Your task to perform on an android device: choose inbox layout in the gmail app Image 0: 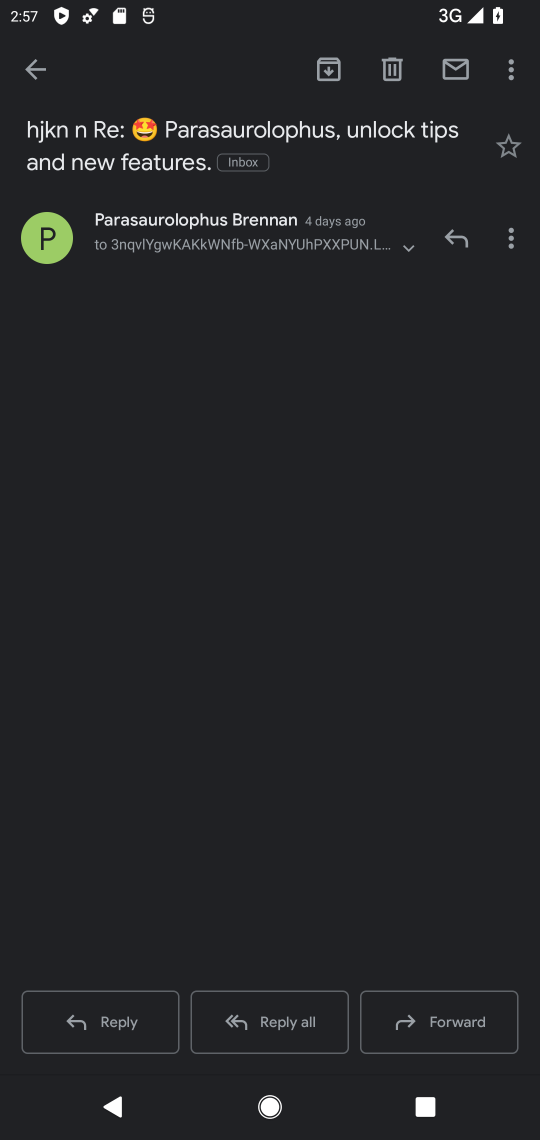
Step 0: click (62, 69)
Your task to perform on an android device: choose inbox layout in the gmail app Image 1: 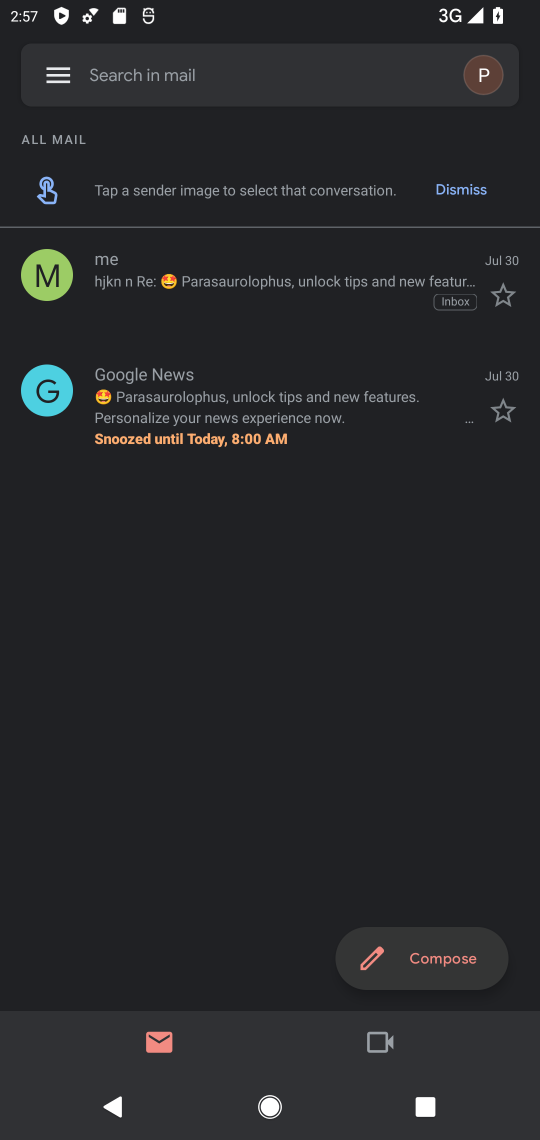
Step 1: click (62, 69)
Your task to perform on an android device: choose inbox layout in the gmail app Image 2: 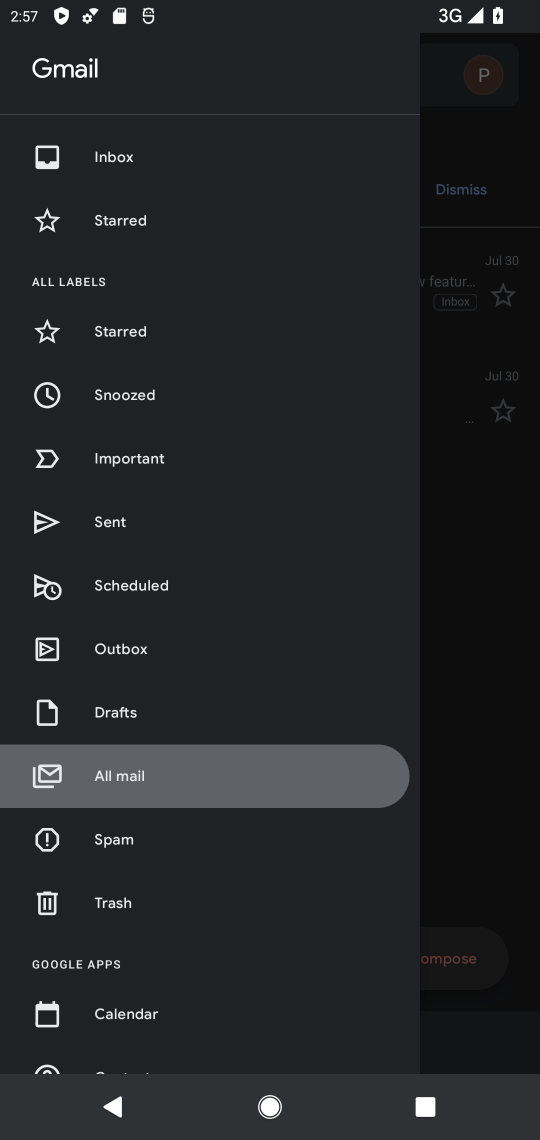
Step 2: drag from (114, 960) to (190, 508)
Your task to perform on an android device: choose inbox layout in the gmail app Image 3: 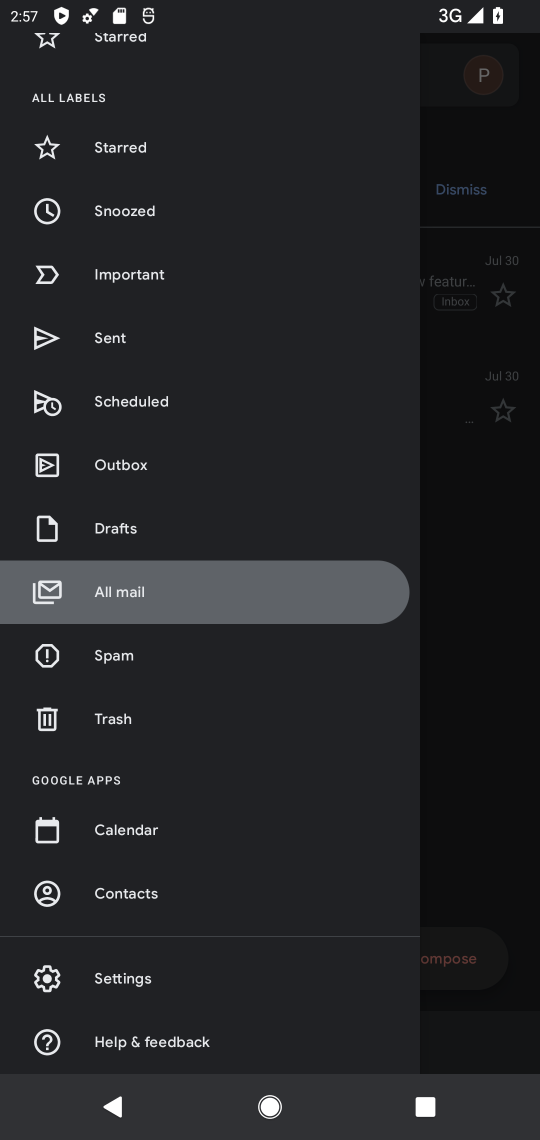
Step 3: click (168, 953)
Your task to perform on an android device: choose inbox layout in the gmail app Image 4: 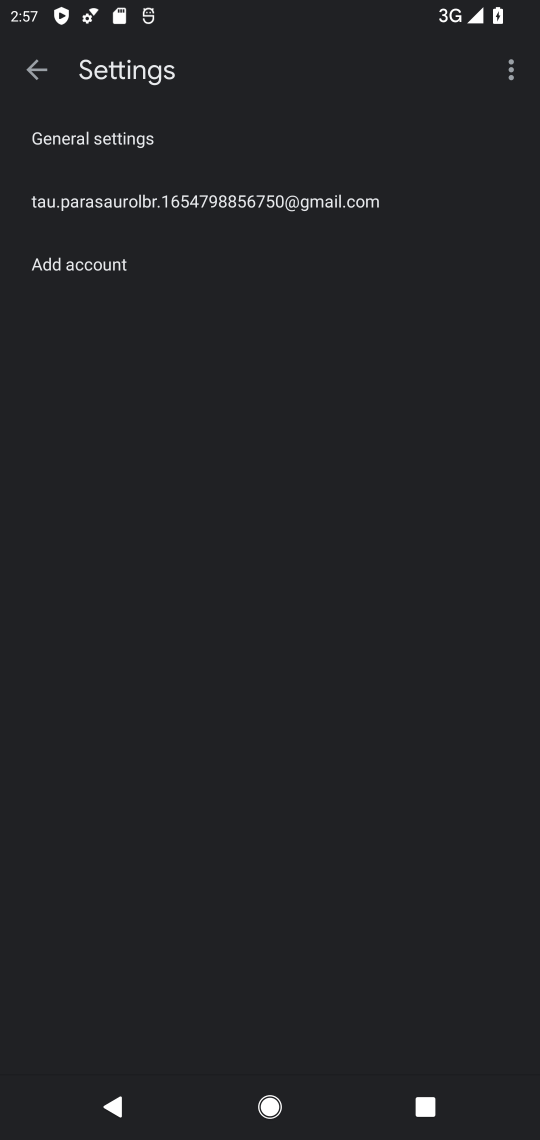
Step 4: click (162, 215)
Your task to perform on an android device: choose inbox layout in the gmail app Image 5: 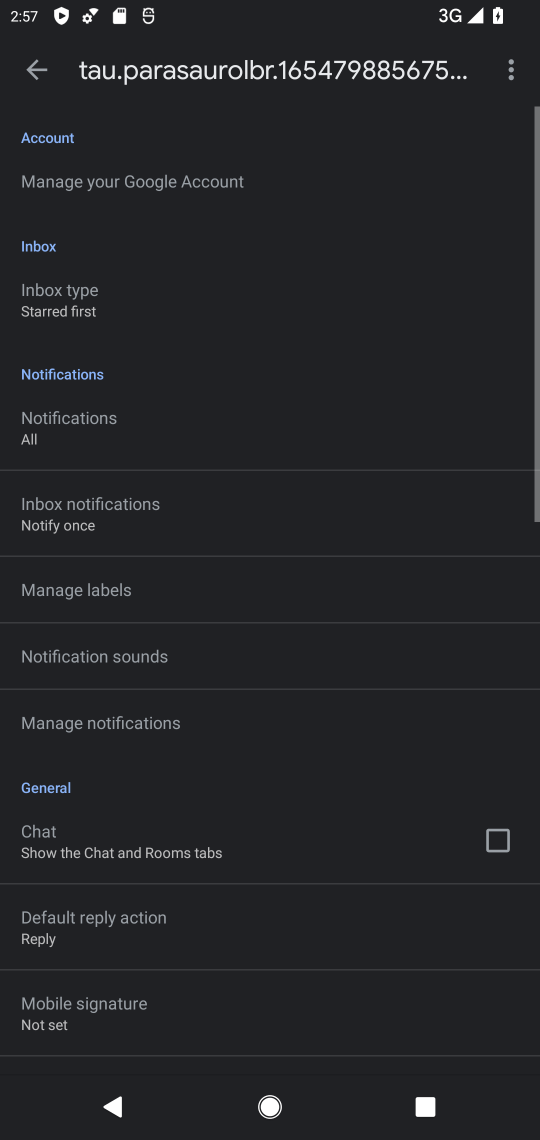
Step 5: click (144, 307)
Your task to perform on an android device: choose inbox layout in the gmail app Image 6: 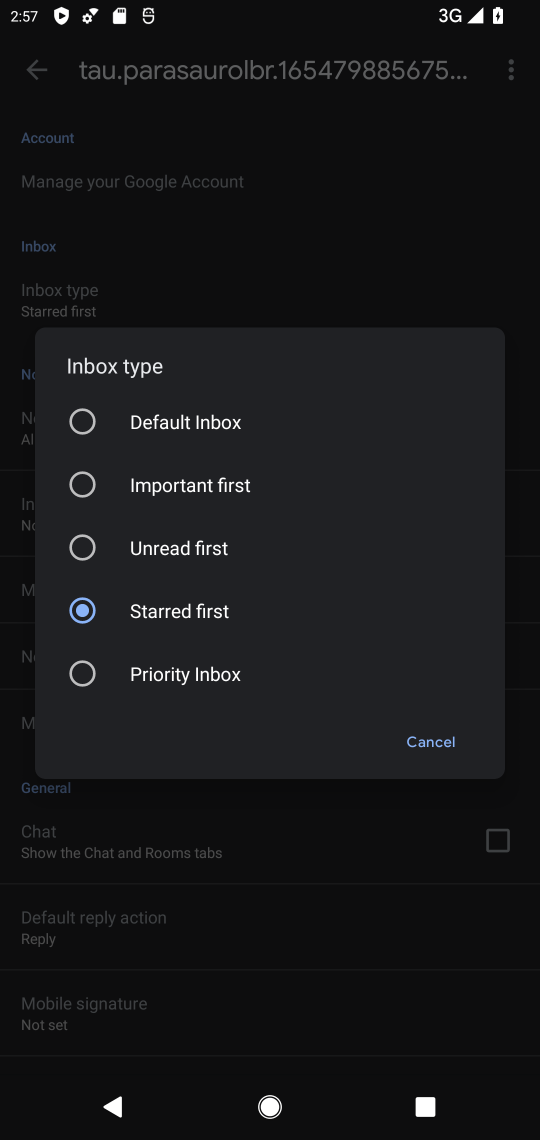
Step 6: click (121, 418)
Your task to perform on an android device: choose inbox layout in the gmail app Image 7: 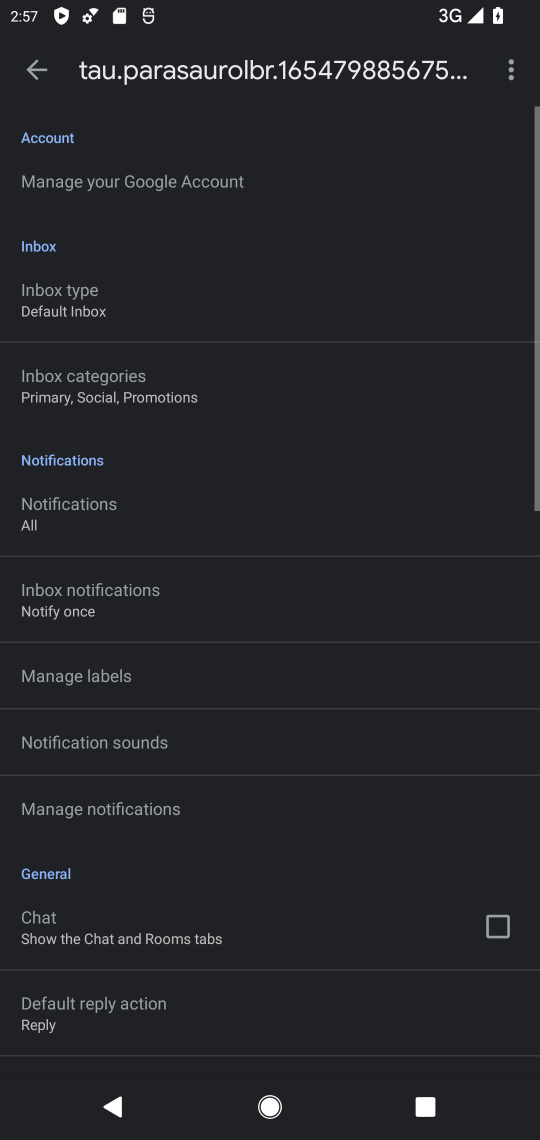
Step 7: task complete